Your task to perform on an android device: Open wifi settings Image 0: 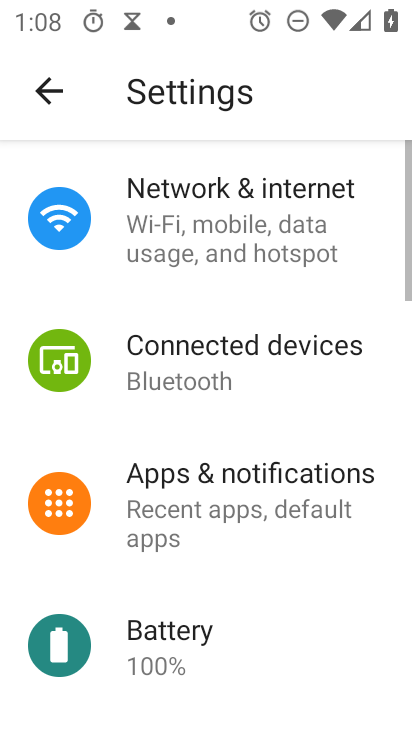
Step 0: press home button
Your task to perform on an android device: Open wifi settings Image 1: 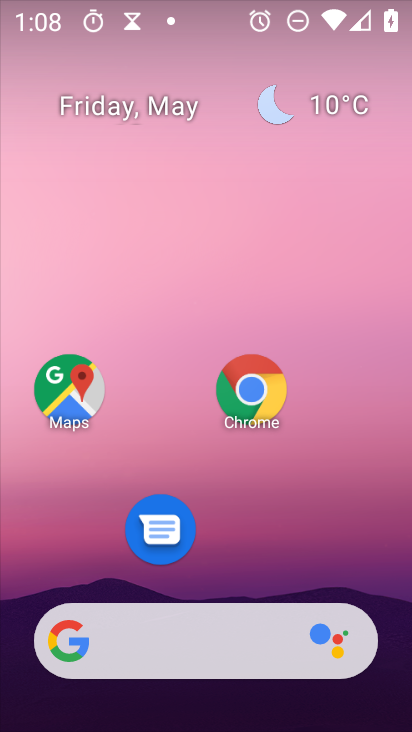
Step 1: drag from (139, 670) to (275, 131)
Your task to perform on an android device: Open wifi settings Image 2: 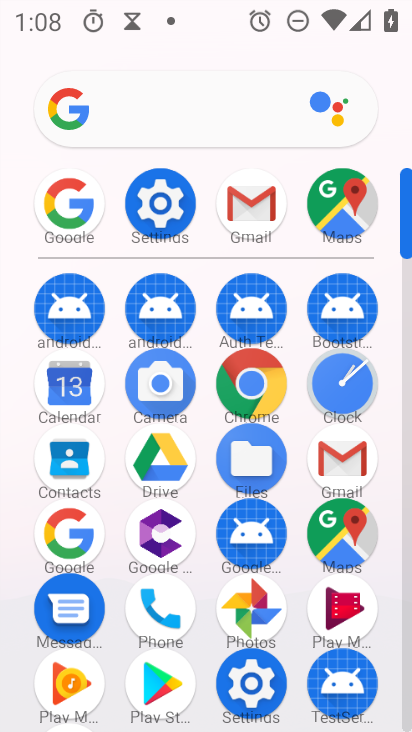
Step 2: click (167, 195)
Your task to perform on an android device: Open wifi settings Image 3: 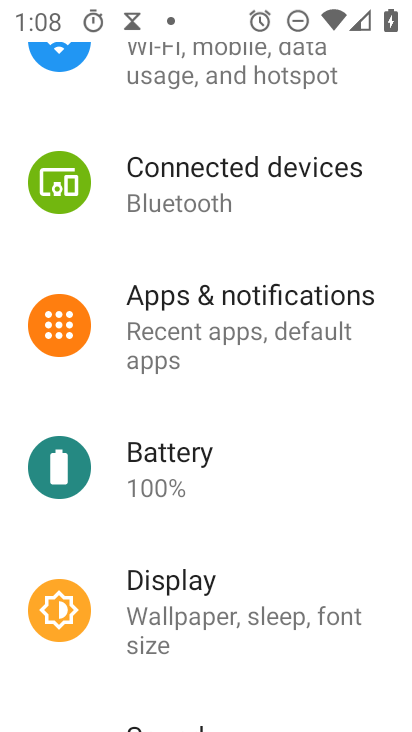
Step 3: drag from (320, 117) to (217, 558)
Your task to perform on an android device: Open wifi settings Image 4: 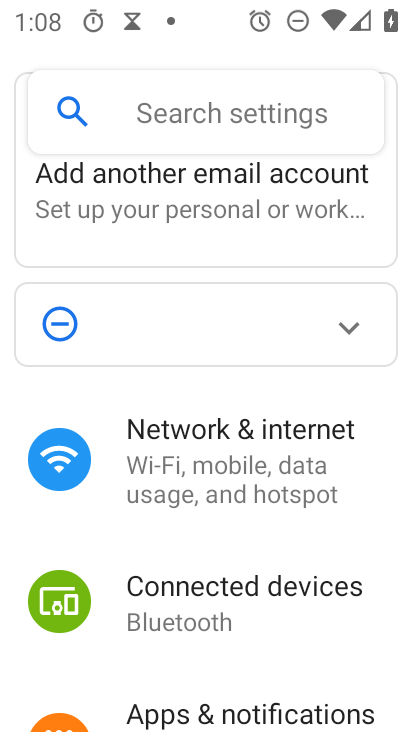
Step 4: click (247, 455)
Your task to perform on an android device: Open wifi settings Image 5: 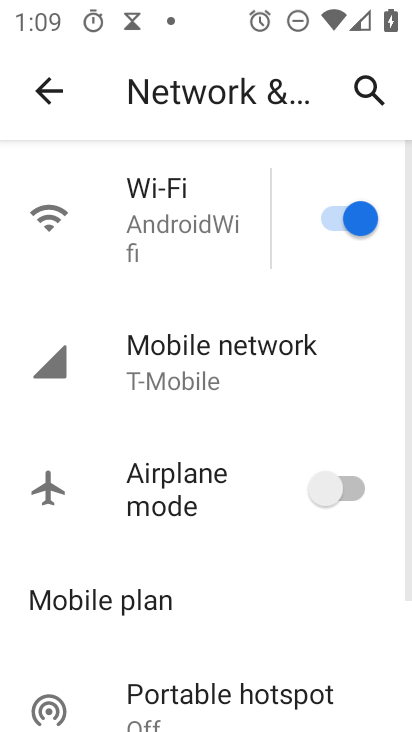
Step 5: click (173, 222)
Your task to perform on an android device: Open wifi settings Image 6: 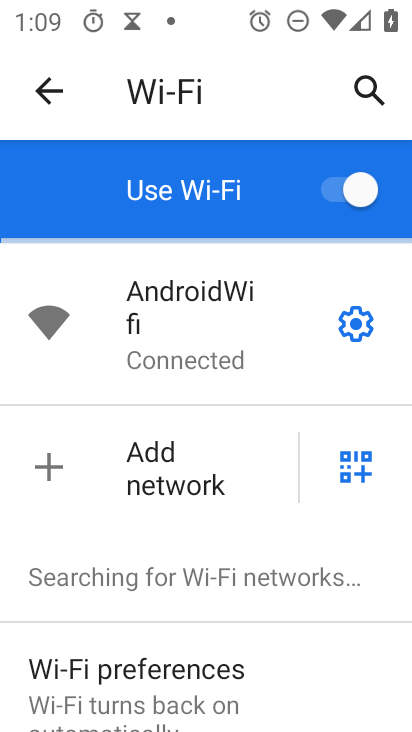
Step 6: task complete